Your task to perform on an android device: Open Chrome and go to settings Image 0: 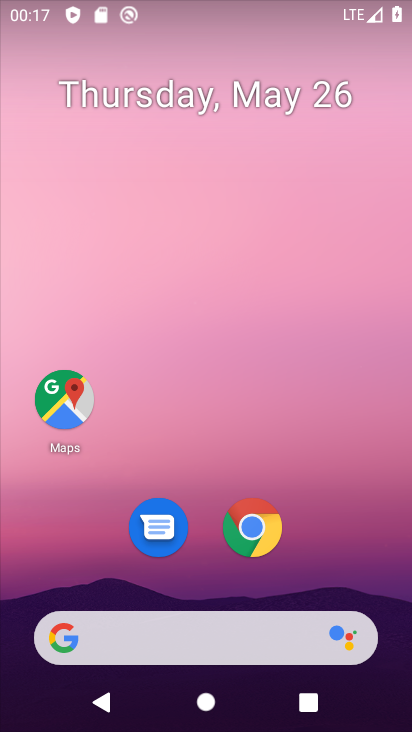
Step 0: click (250, 538)
Your task to perform on an android device: Open Chrome and go to settings Image 1: 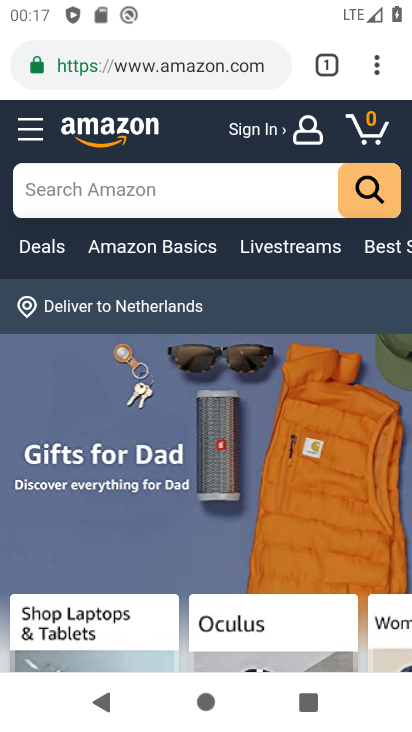
Step 1: click (396, 62)
Your task to perform on an android device: Open Chrome and go to settings Image 2: 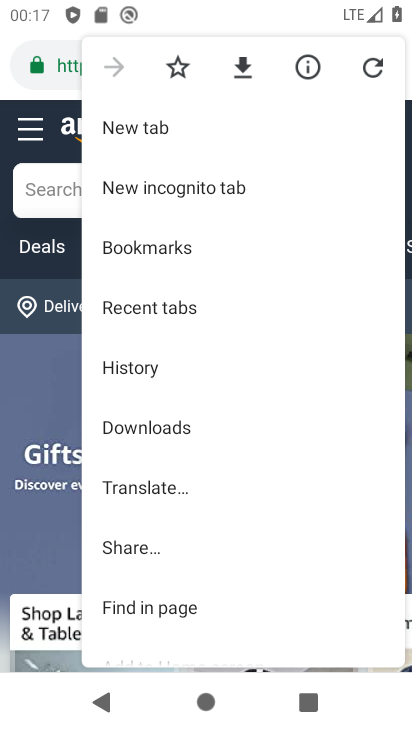
Step 2: drag from (158, 638) to (233, 191)
Your task to perform on an android device: Open Chrome and go to settings Image 3: 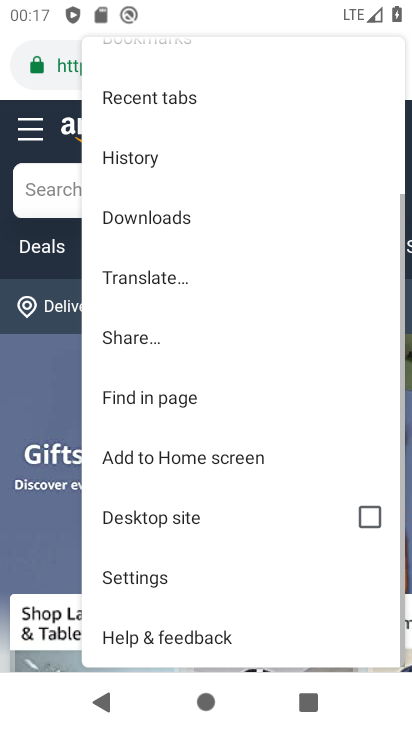
Step 3: click (168, 590)
Your task to perform on an android device: Open Chrome and go to settings Image 4: 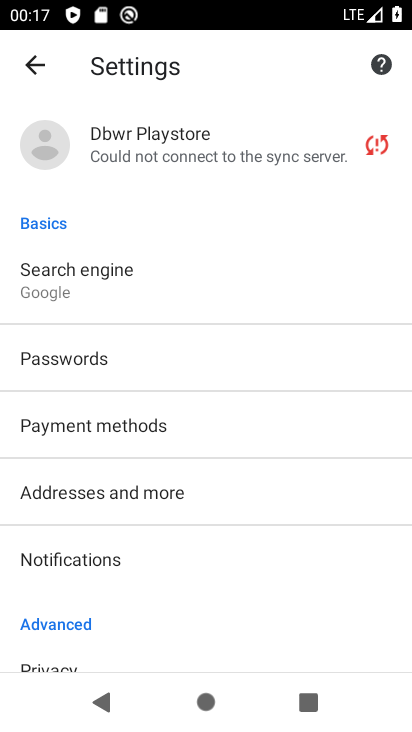
Step 4: task complete